Your task to perform on an android device: toggle translation in the chrome app Image 0: 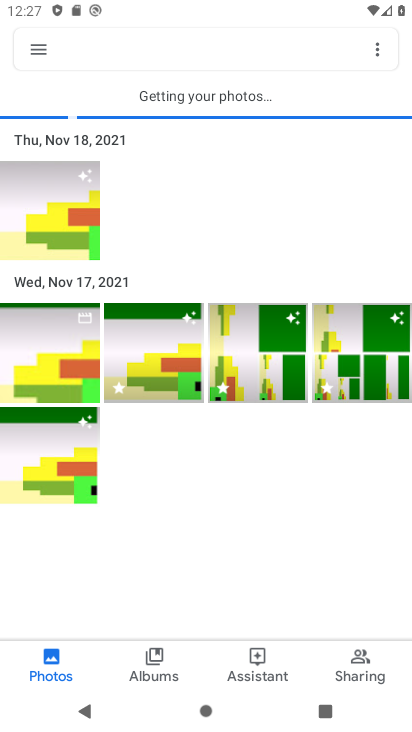
Step 0: drag from (251, 641) to (143, 37)
Your task to perform on an android device: toggle translation in the chrome app Image 1: 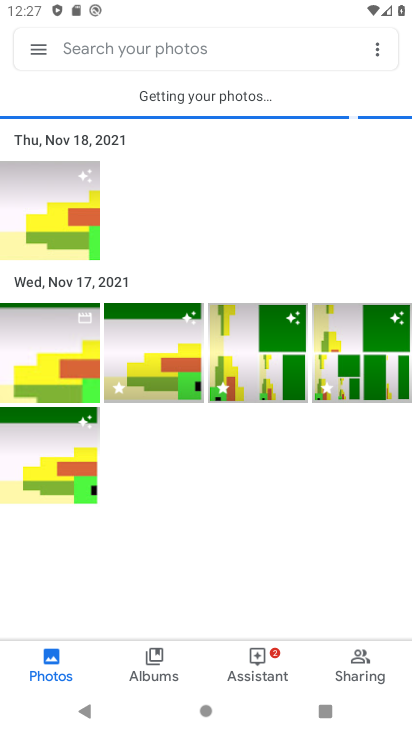
Step 1: press home button
Your task to perform on an android device: toggle translation in the chrome app Image 2: 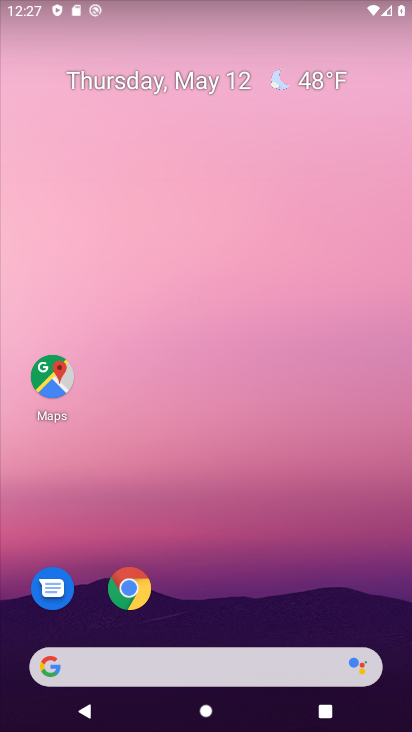
Step 2: drag from (281, 633) to (116, 48)
Your task to perform on an android device: toggle translation in the chrome app Image 3: 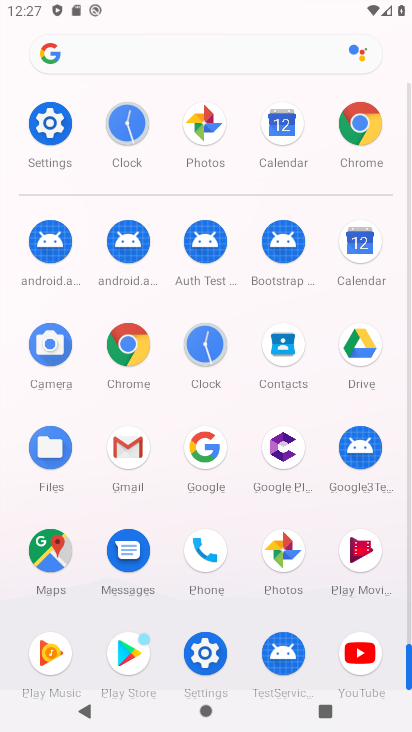
Step 3: click (359, 127)
Your task to perform on an android device: toggle translation in the chrome app Image 4: 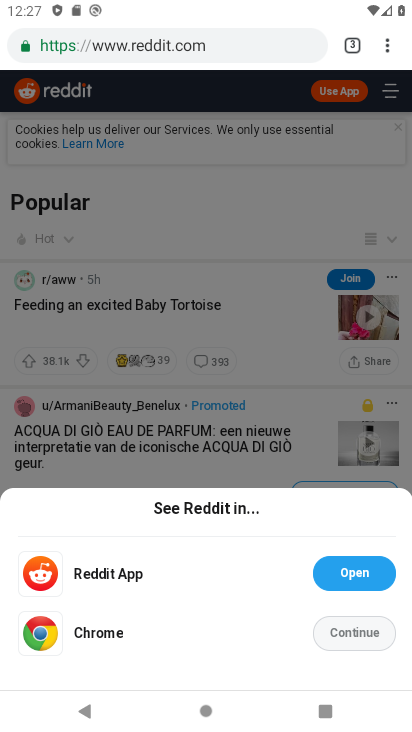
Step 4: drag from (390, 47) to (225, 506)
Your task to perform on an android device: toggle translation in the chrome app Image 5: 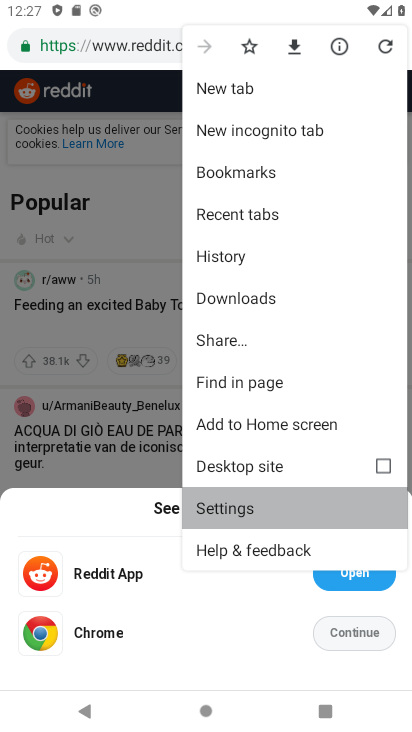
Step 5: click (225, 506)
Your task to perform on an android device: toggle translation in the chrome app Image 6: 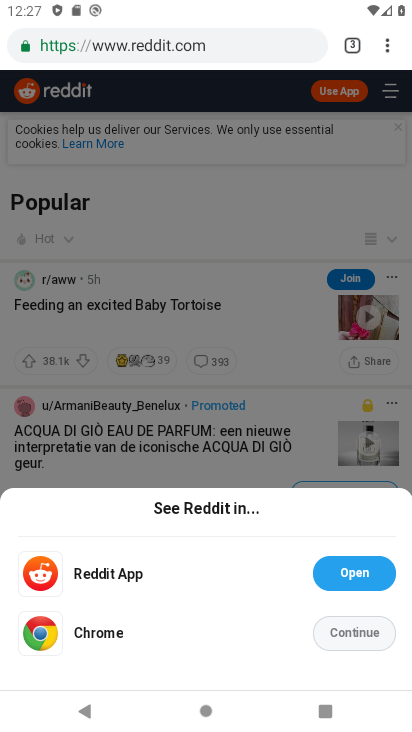
Step 6: click (225, 506)
Your task to perform on an android device: toggle translation in the chrome app Image 7: 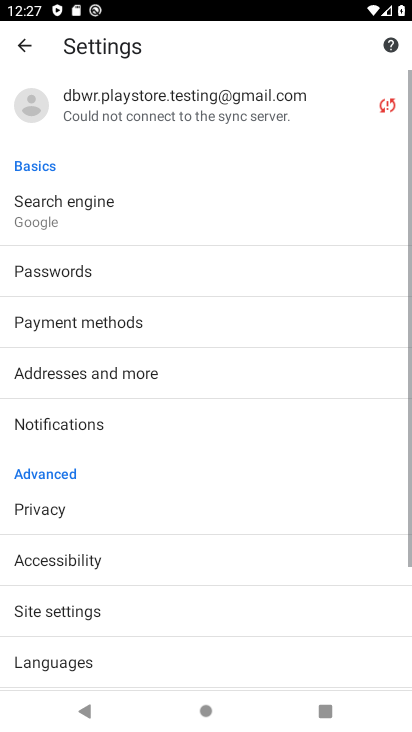
Step 7: drag from (102, 469) to (8, 54)
Your task to perform on an android device: toggle translation in the chrome app Image 8: 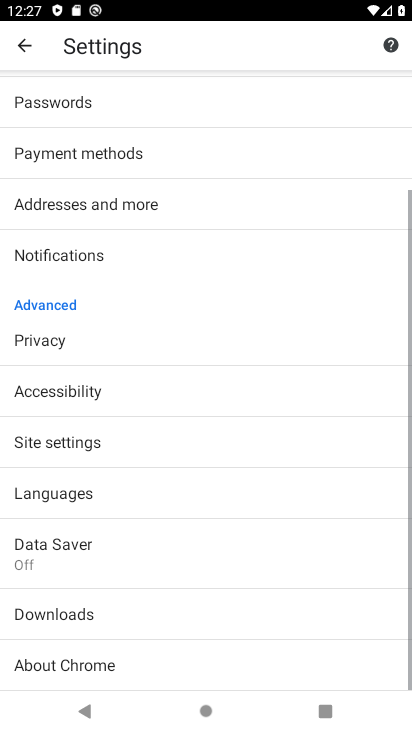
Step 8: drag from (60, 490) to (105, 144)
Your task to perform on an android device: toggle translation in the chrome app Image 9: 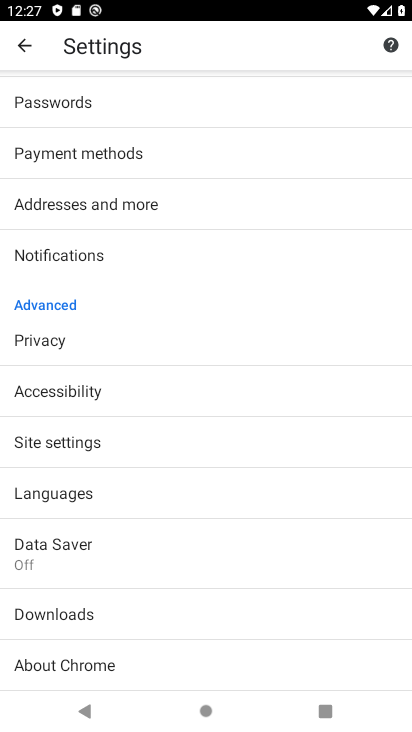
Step 9: click (58, 468)
Your task to perform on an android device: toggle translation in the chrome app Image 10: 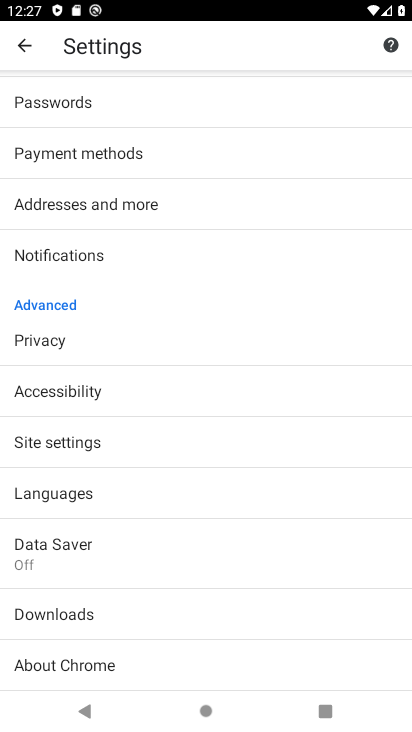
Step 10: click (45, 479)
Your task to perform on an android device: toggle translation in the chrome app Image 11: 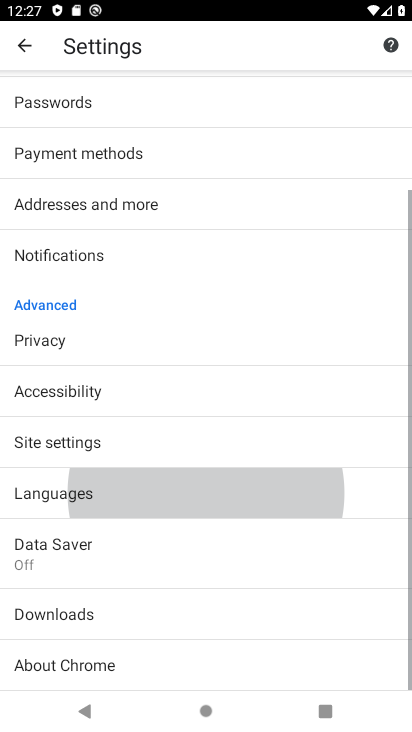
Step 11: click (49, 480)
Your task to perform on an android device: toggle translation in the chrome app Image 12: 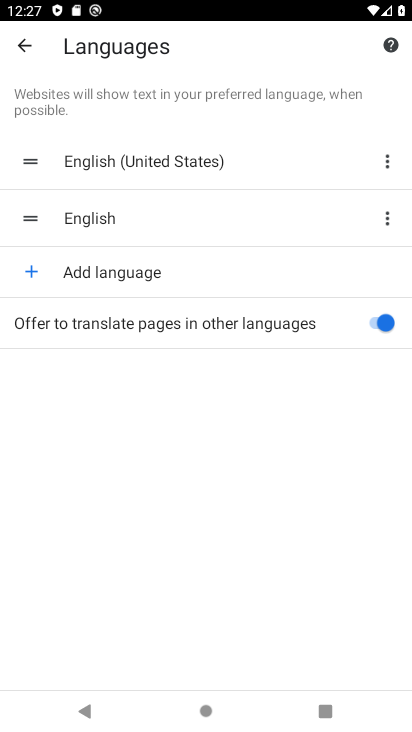
Step 12: click (385, 314)
Your task to perform on an android device: toggle translation in the chrome app Image 13: 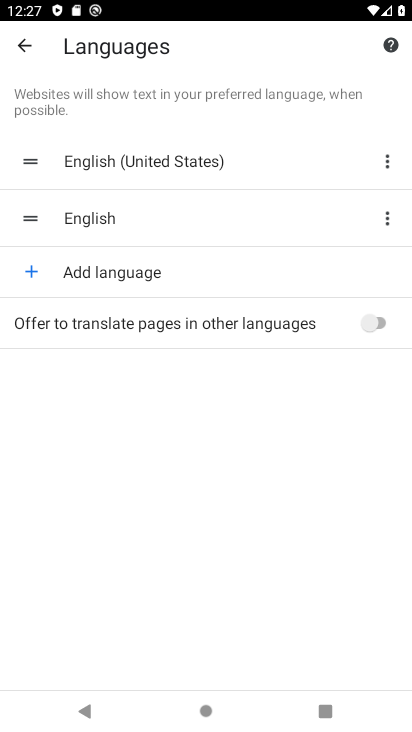
Step 13: click (12, 50)
Your task to perform on an android device: toggle translation in the chrome app Image 14: 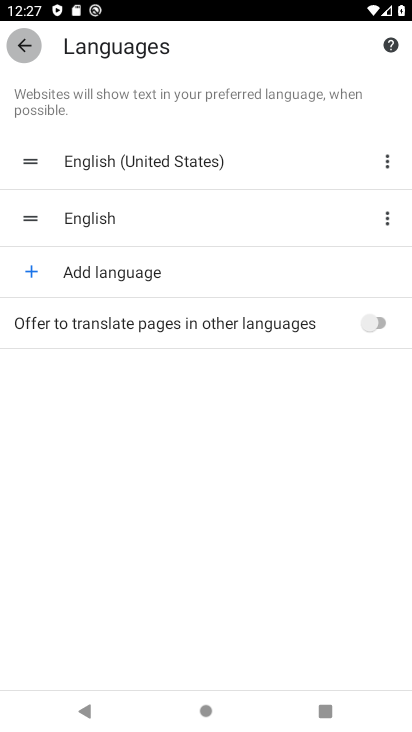
Step 14: click (23, 40)
Your task to perform on an android device: toggle translation in the chrome app Image 15: 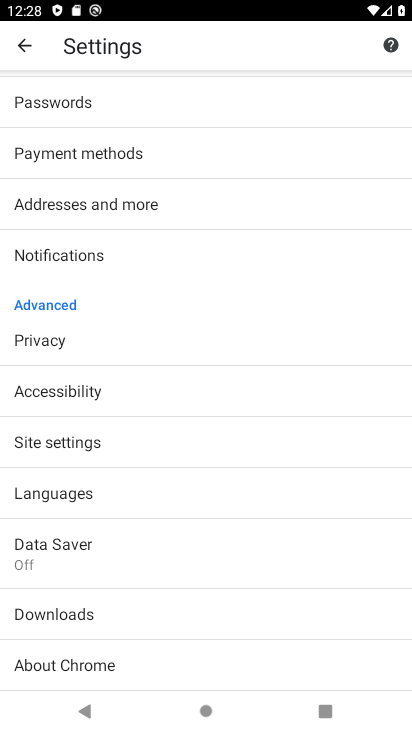
Step 15: drag from (136, 482) to (192, 242)
Your task to perform on an android device: toggle translation in the chrome app Image 16: 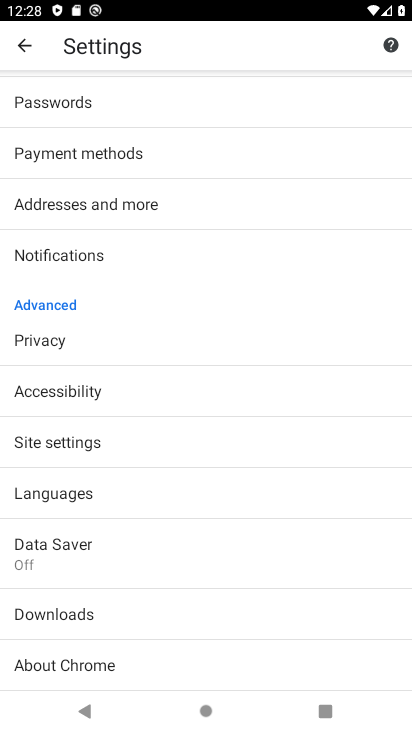
Step 16: drag from (46, 483) to (50, 546)
Your task to perform on an android device: toggle translation in the chrome app Image 17: 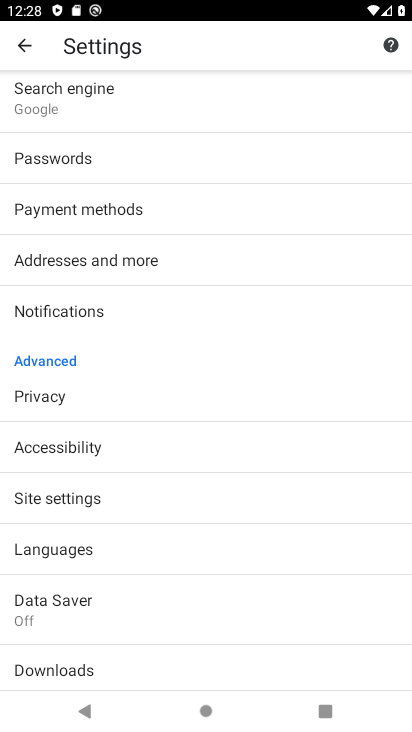
Step 17: click (65, 552)
Your task to perform on an android device: toggle translation in the chrome app Image 18: 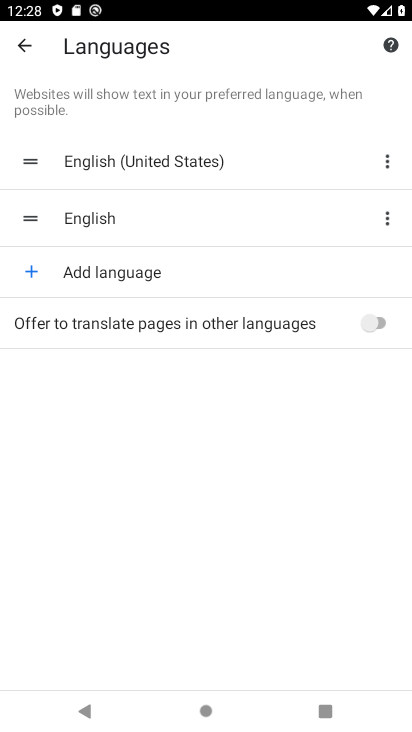
Step 18: click (369, 315)
Your task to perform on an android device: toggle translation in the chrome app Image 19: 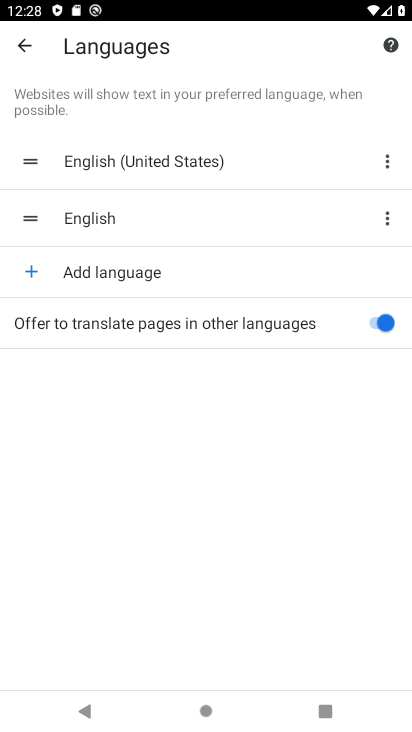
Step 19: task complete